Your task to perform on an android device: Open notification settings Image 0: 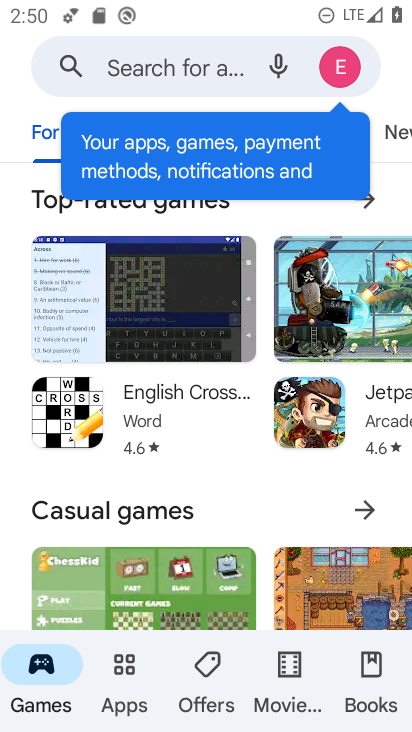
Step 0: press home button
Your task to perform on an android device: Open notification settings Image 1: 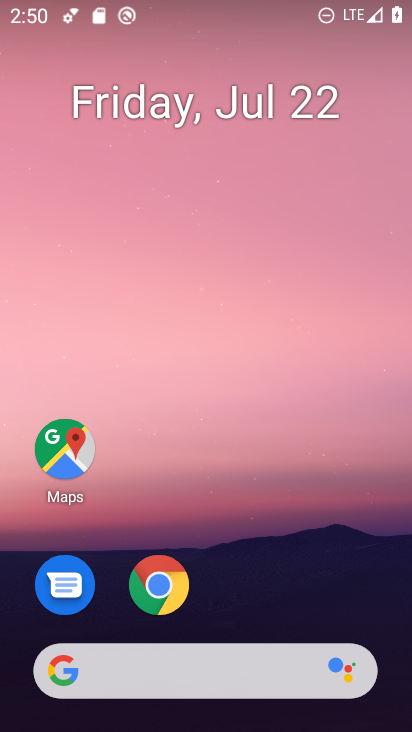
Step 1: drag from (259, 546) to (282, 97)
Your task to perform on an android device: Open notification settings Image 2: 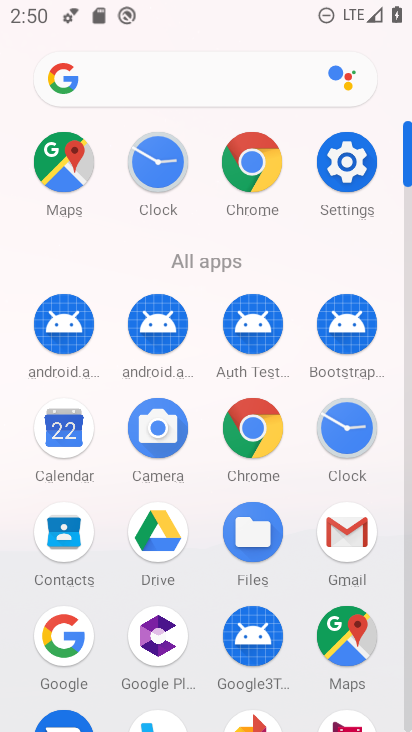
Step 2: click (349, 167)
Your task to perform on an android device: Open notification settings Image 3: 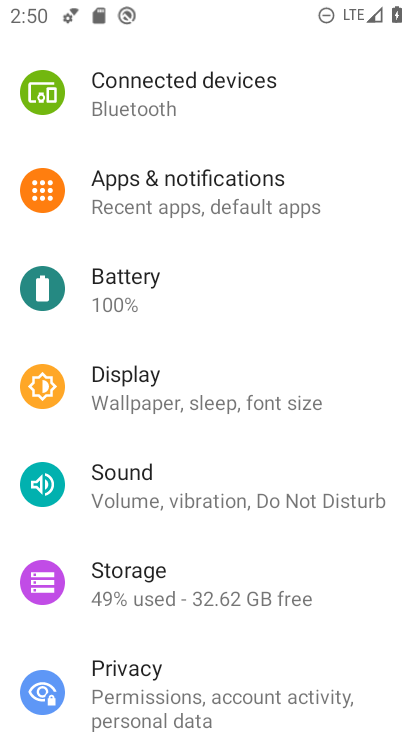
Step 3: click (226, 209)
Your task to perform on an android device: Open notification settings Image 4: 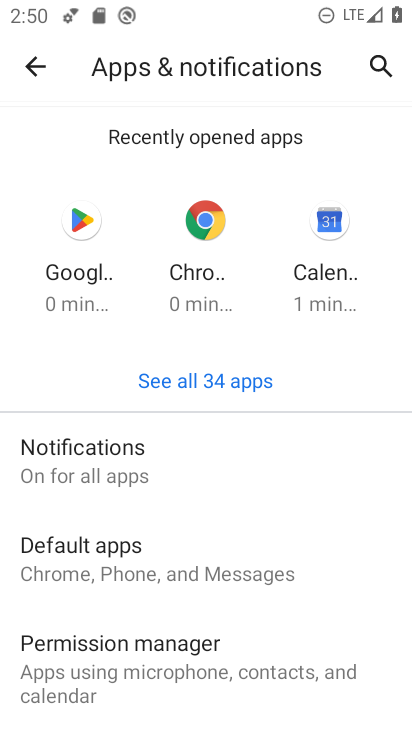
Step 4: click (133, 461)
Your task to perform on an android device: Open notification settings Image 5: 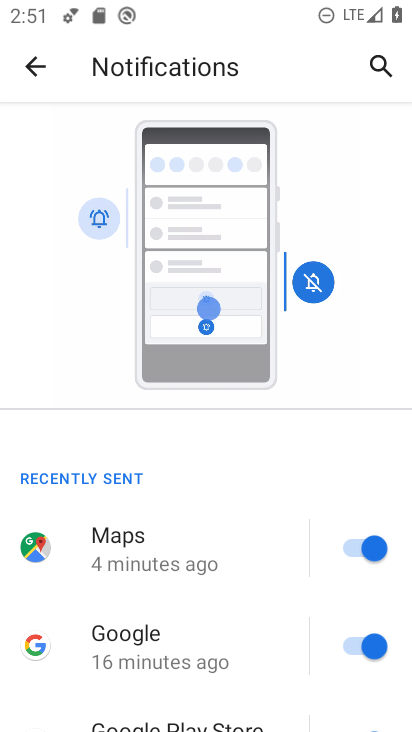
Step 5: task complete